Your task to perform on an android device: find which apps use the phone's location Image 0: 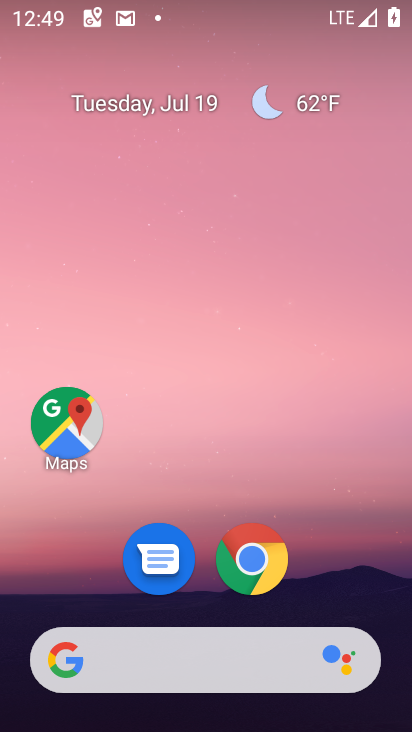
Step 0: drag from (238, 648) to (330, 211)
Your task to perform on an android device: find which apps use the phone's location Image 1: 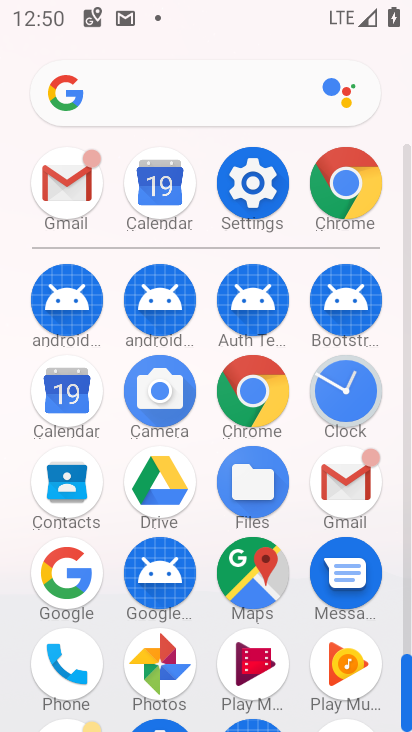
Step 1: click (261, 203)
Your task to perform on an android device: find which apps use the phone's location Image 2: 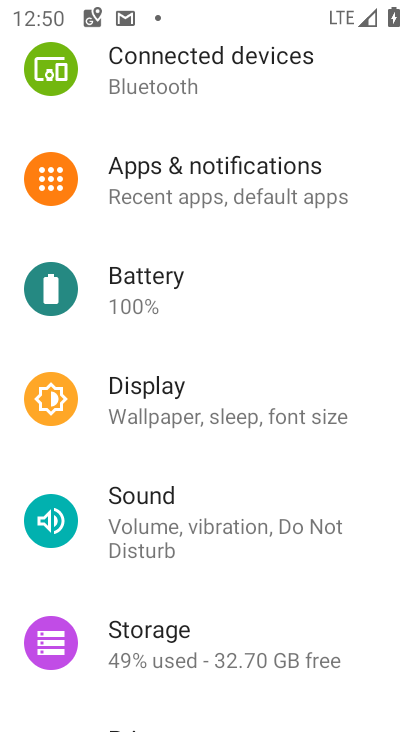
Step 2: drag from (197, 348) to (162, 715)
Your task to perform on an android device: find which apps use the phone's location Image 3: 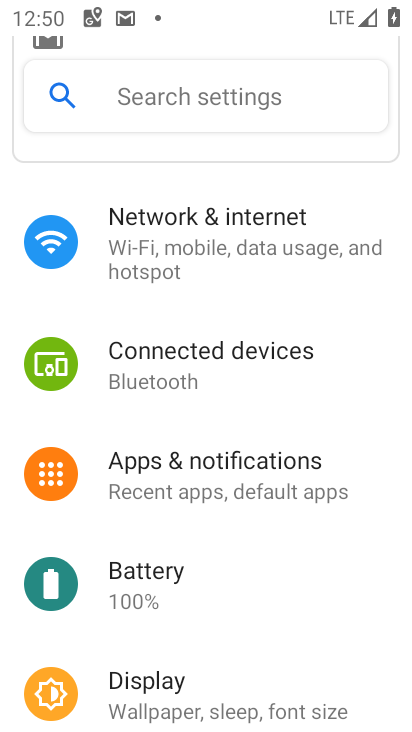
Step 3: drag from (235, 549) to (274, 245)
Your task to perform on an android device: find which apps use the phone's location Image 4: 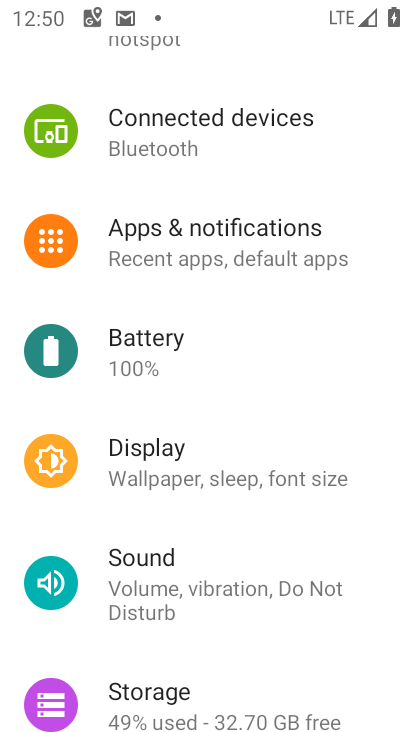
Step 4: drag from (189, 489) to (215, 314)
Your task to perform on an android device: find which apps use the phone's location Image 5: 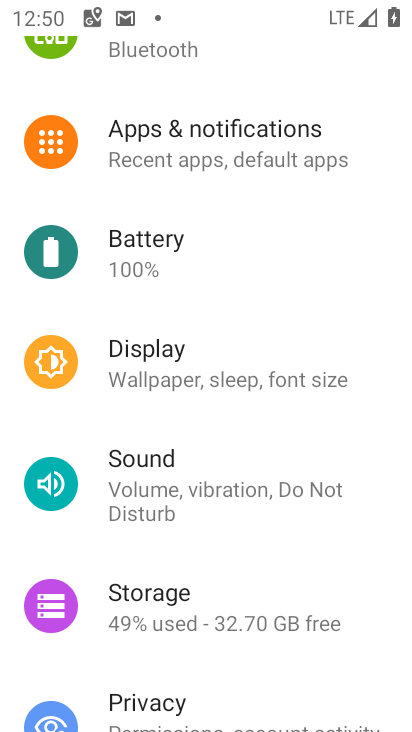
Step 5: drag from (207, 298) to (171, 649)
Your task to perform on an android device: find which apps use the phone's location Image 6: 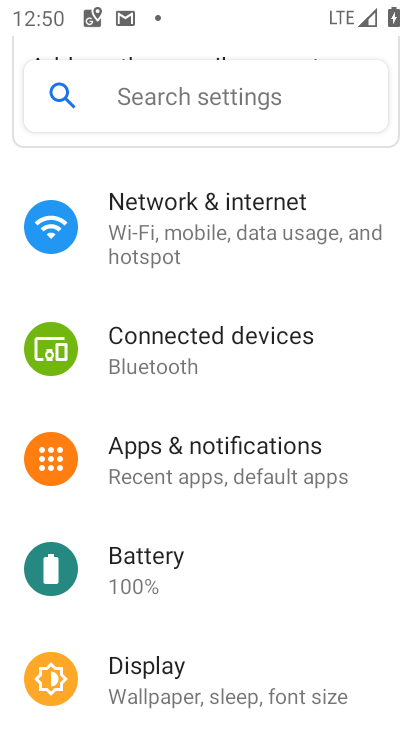
Step 6: drag from (154, 622) to (238, 113)
Your task to perform on an android device: find which apps use the phone's location Image 7: 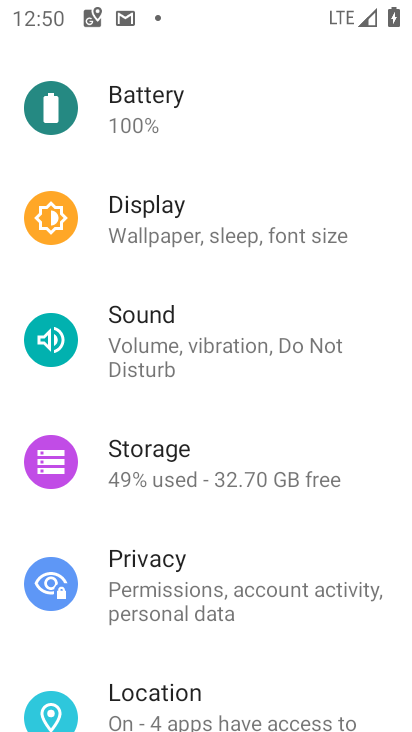
Step 7: click (167, 693)
Your task to perform on an android device: find which apps use the phone's location Image 8: 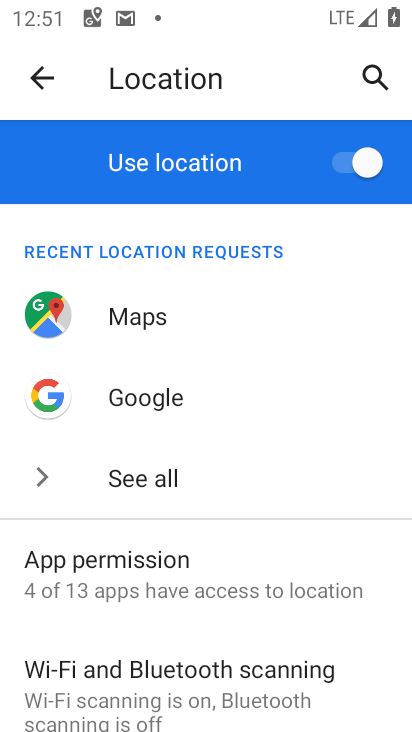
Step 8: click (126, 590)
Your task to perform on an android device: find which apps use the phone's location Image 9: 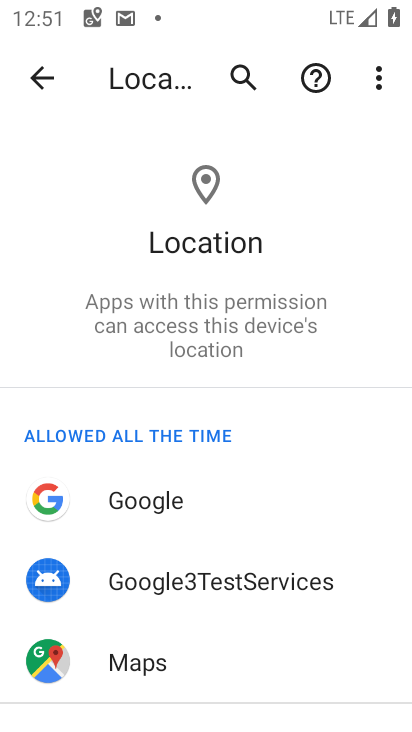
Step 9: task complete